Your task to perform on an android device: What is the recent news? Image 0: 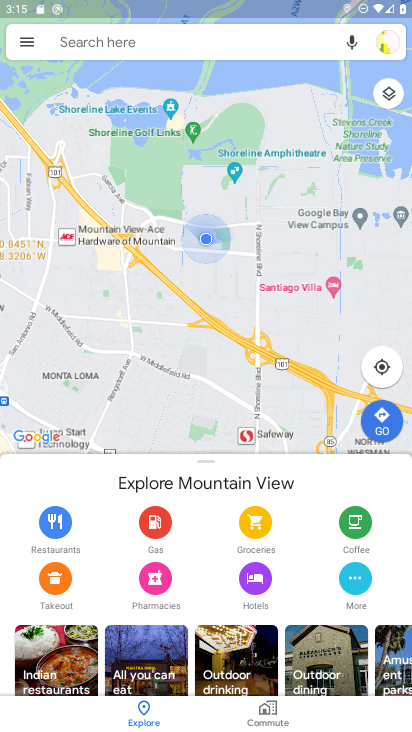
Step 0: press home button
Your task to perform on an android device: What is the recent news? Image 1: 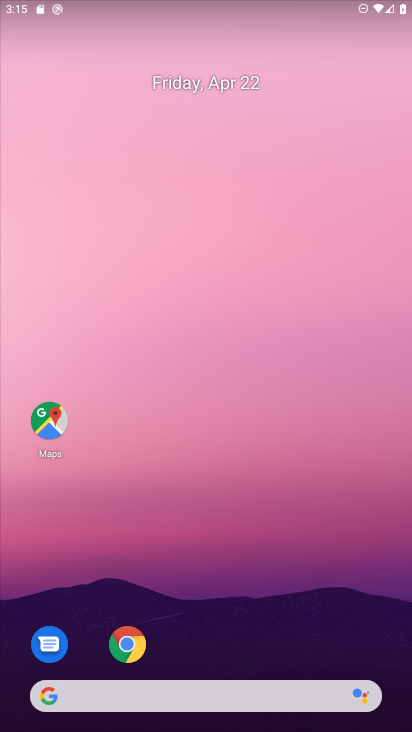
Step 1: click (129, 637)
Your task to perform on an android device: What is the recent news? Image 2: 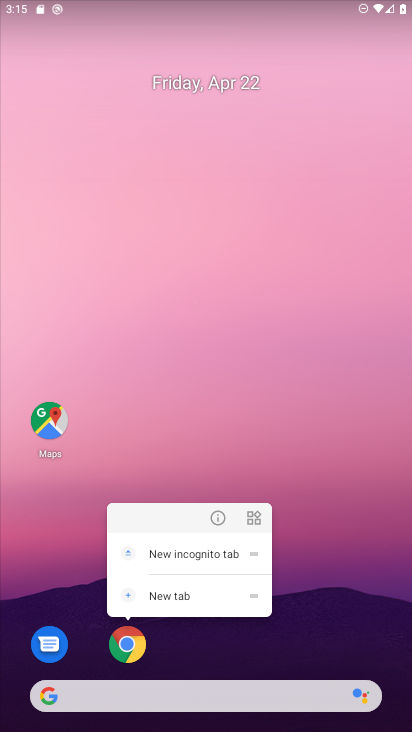
Step 2: drag from (336, 644) to (338, 49)
Your task to perform on an android device: What is the recent news? Image 3: 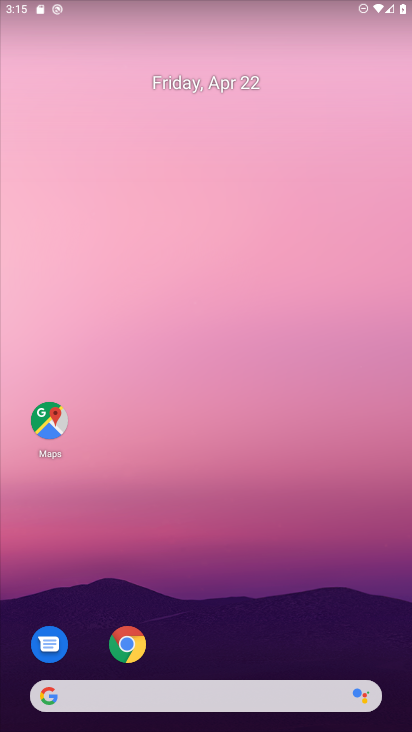
Step 3: drag from (238, 598) to (274, 56)
Your task to perform on an android device: What is the recent news? Image 4: 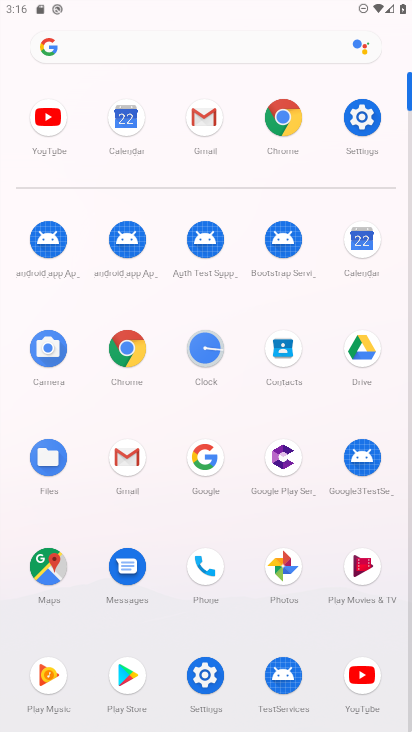
Step 4: click (126, 352)
Your task to perform on an android device: What is the recent news? Image 5: 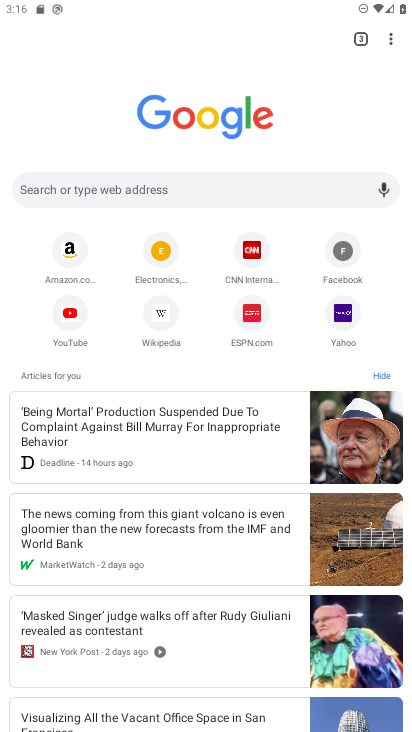
Step 5: click (235, 186)
Your task to perform on an android device: What is the recent news? Image 6: 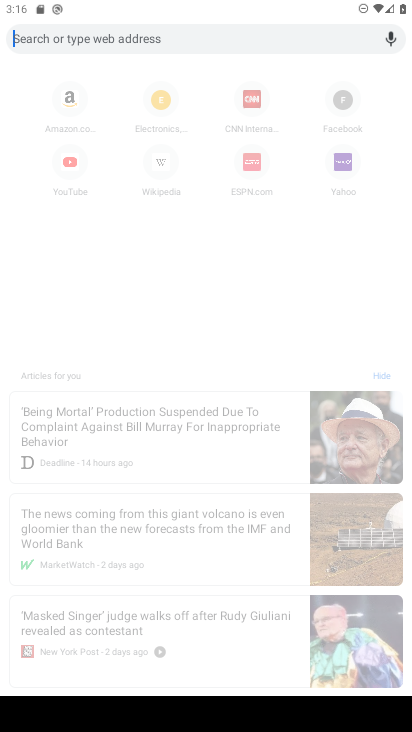
Step 6: type "news"
Your task to perform on an android device: What is the recent news? Image 7: 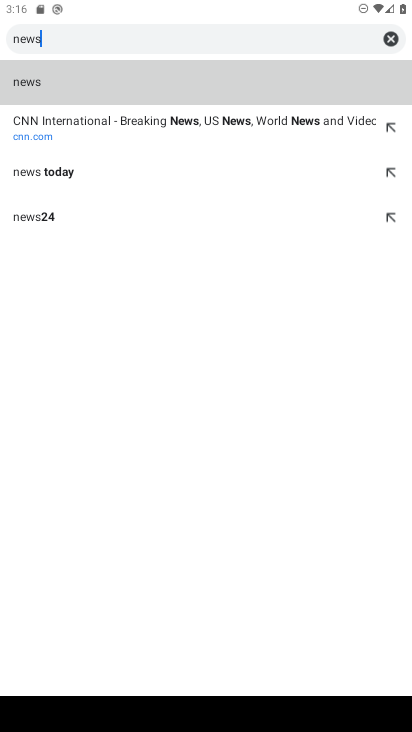
Step 7: click (36, 81)
Your task to perform on an android device: What is the recent news? Image 8: 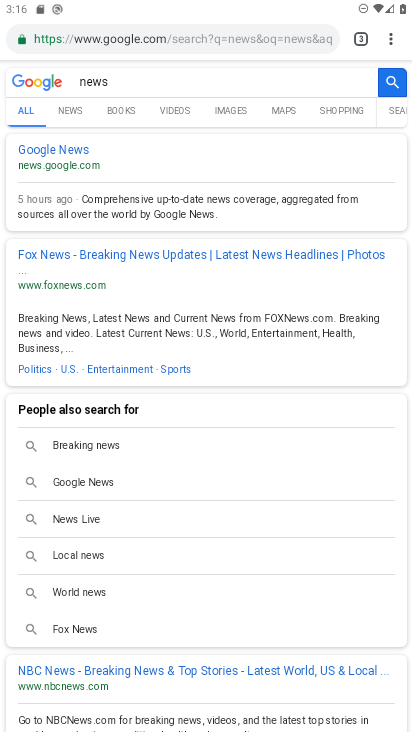
Step 8: click (76, 108)
Your task to perform on an android device: What is the recent news? Image 9: 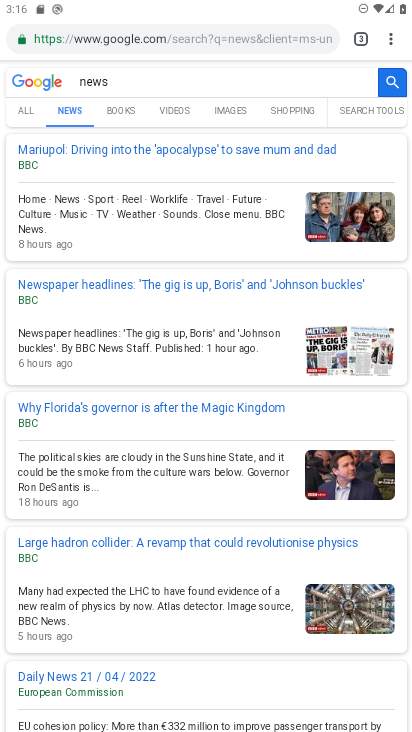
Step 9: task complete